Your task to perform on an android device: Open maps Image 0: 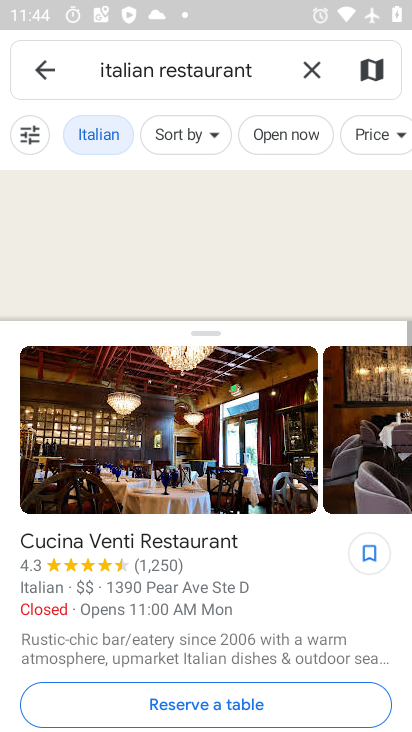
Step 0: press home button
Your task to perform on an android device: Open maps Image 1: 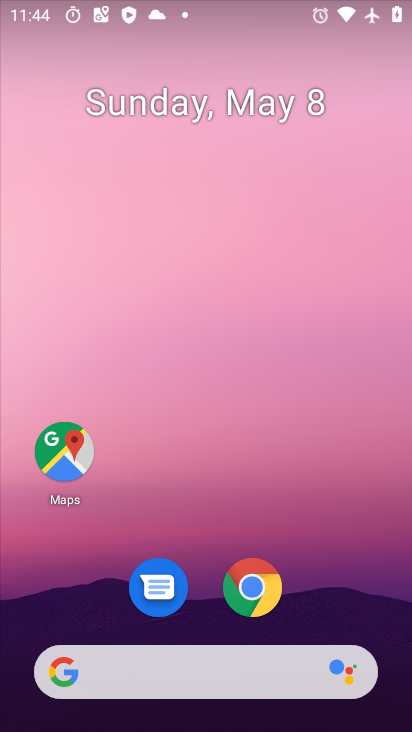
Step 1: drag from (353, 597) to (228, 182)
Your task to perform on an android device: Open maps Image 2: 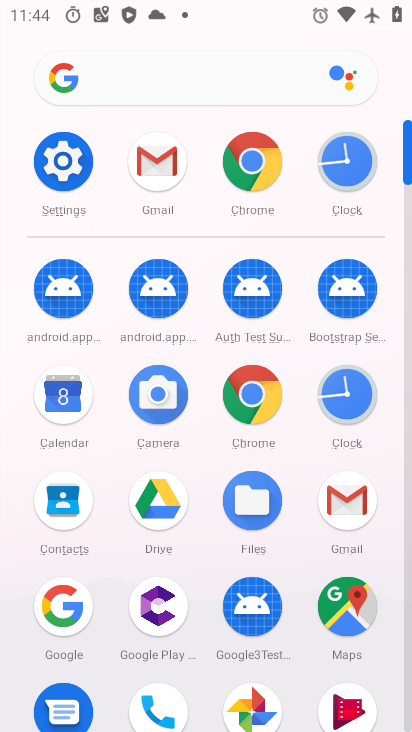
Step 2: click (339, 587)
Your task to perform on an android device: Open maps Image 3: 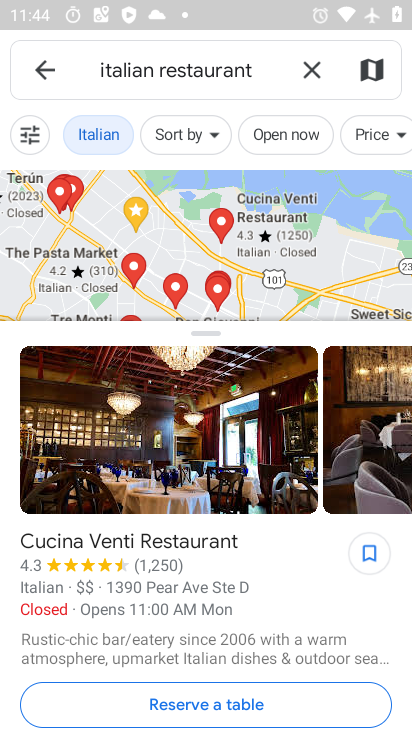
Step 3: task complete